Your task to perform on an android device: change your default location settings in chrome Image 0: 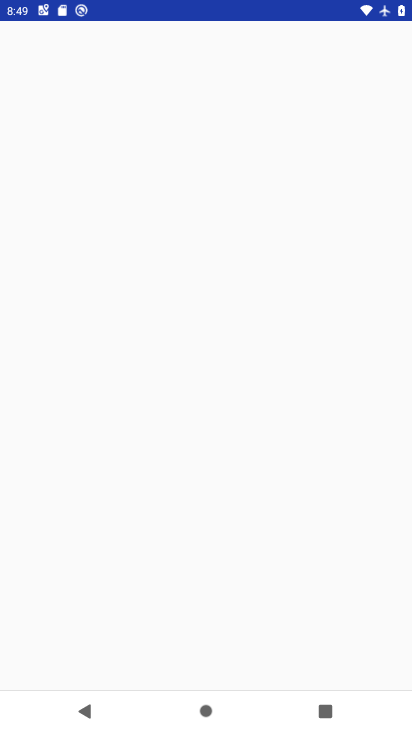
Step 0: drag from (367, 607) to (369, 358)
Your task to perform on an android device: change your default location settings in chrome Image 1: 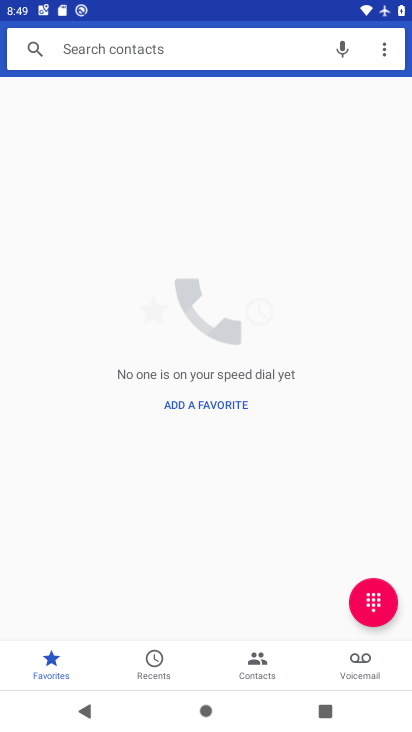
Step 1: press home button
Your task to perform on an android device: change your default location settings in chrome Image 2: 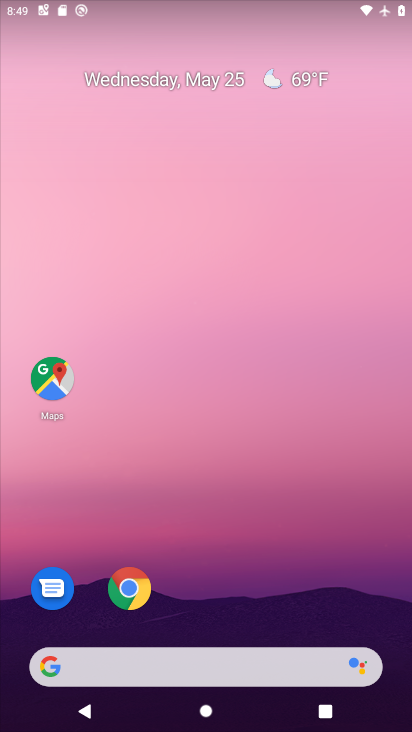
Step 2: drag from (307, 586) to (316, 229)
Your task to perform on an android device: change your default location settings in chrome Image 3: 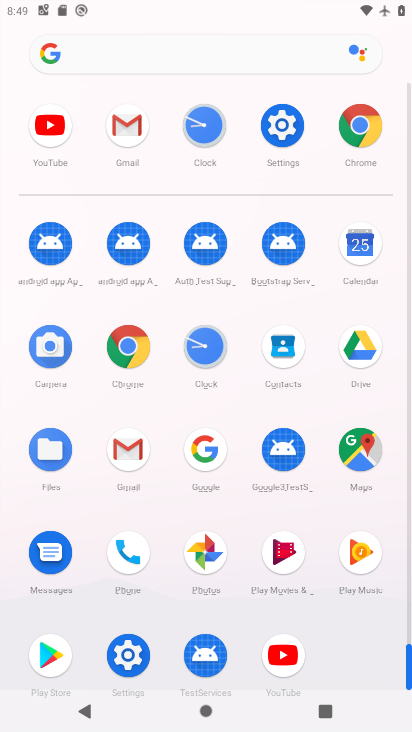
Step 3: click (145, 360)
Your task to perform on an android device: change your default location settings in chrome Image 4: 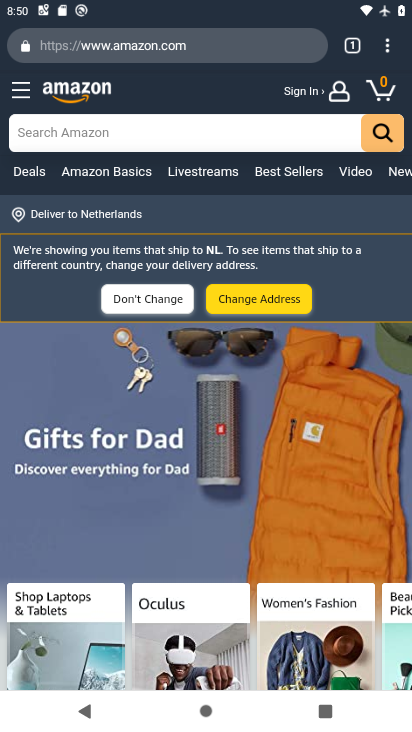
Step 4: click (384, 51)
Your task to perform on an android device: change your default location settings in chrome Image 5: 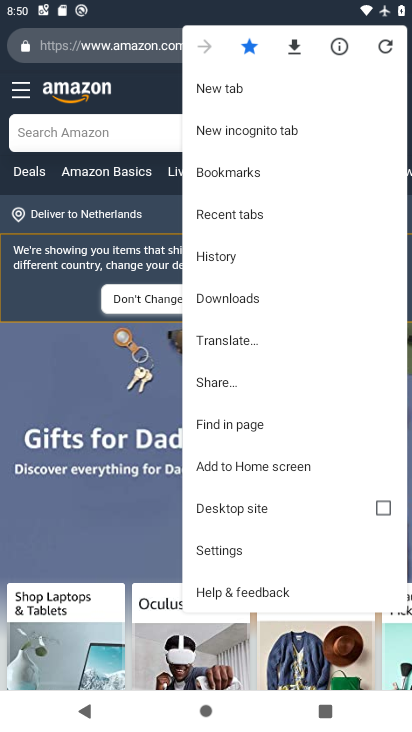
Step 5: click (245, 550)
Your task to perform on an android device: change your default location settings in chrome Image 6: 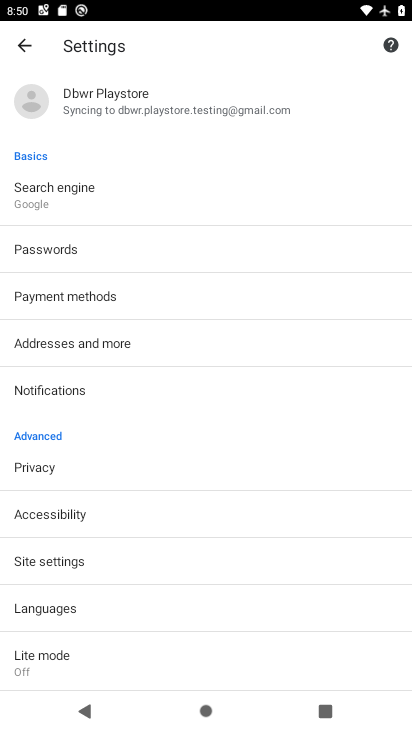
Step 6: drag from (292, 606) to (306, 545)
Your task to perform on an android device: change your default location settings in chrome Image 7: 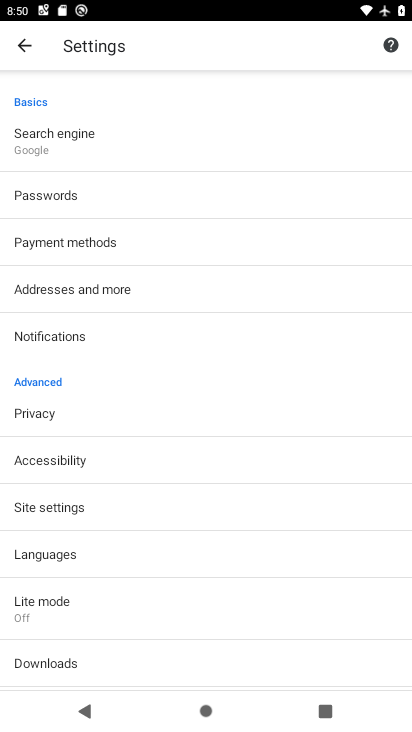
Step 7: drag from (334, 629) to (347, 559)
Your task to perform on an android device: change your default location settings in chrome Image 8: 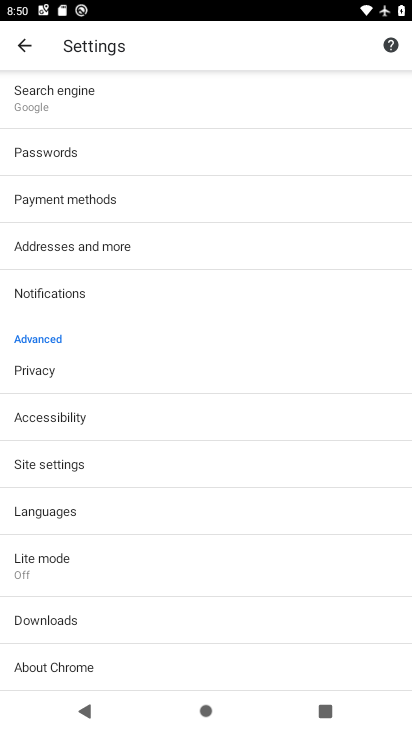
Step 8: drag from (362, 637) to (374, 570)
Your task to perform on an android device: change your default location settings in chrome Image 9: 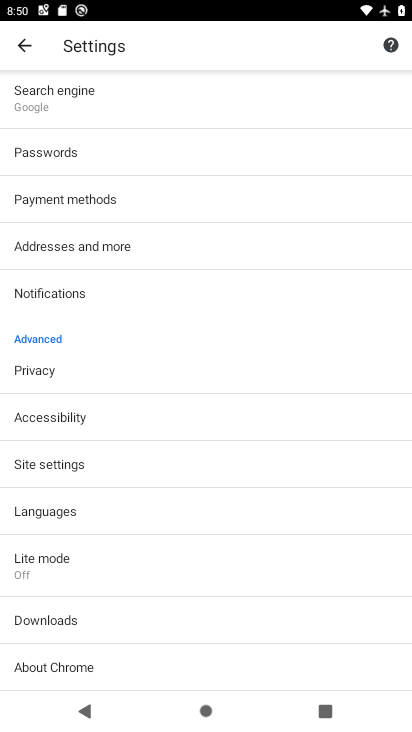
Step 9: click (329, 451)
Your task to perform on an android device: change your default location settings in chrome Image 10: 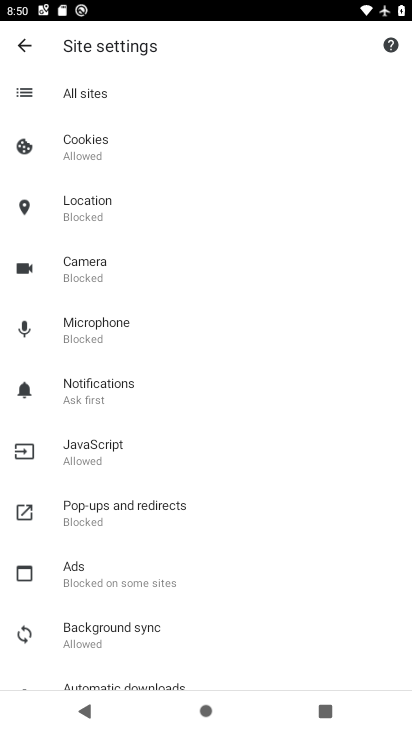
Step 10: drag from (364, 540) to (334, 426)
Your task to perform on an android device: change your default location settings in chrome Image 11: 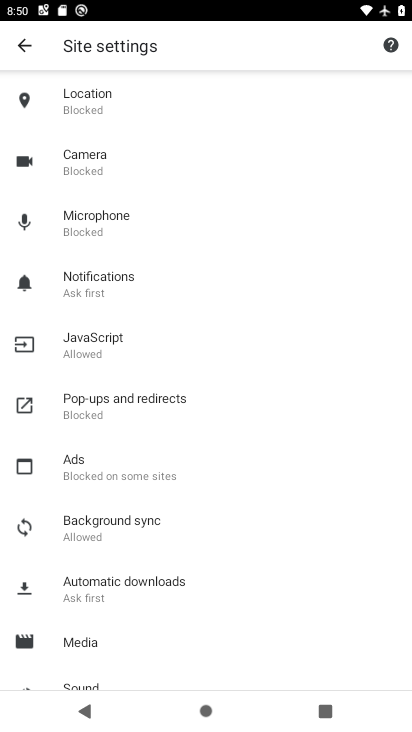
Step 11: drag from (327, 591) to (336, 499)
Your task to perform on an android device: change your default location settings in chrome Image 12: 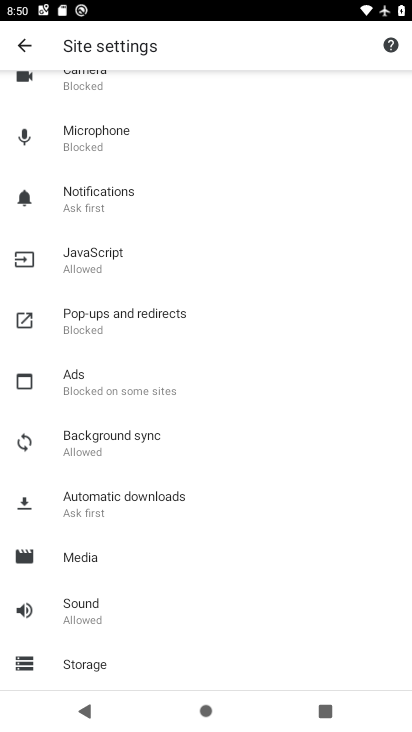
Step 12: drag from (369, 595) to (364, 526)
Your task to perform on an android device: change your default location settings in chrome Image 13: 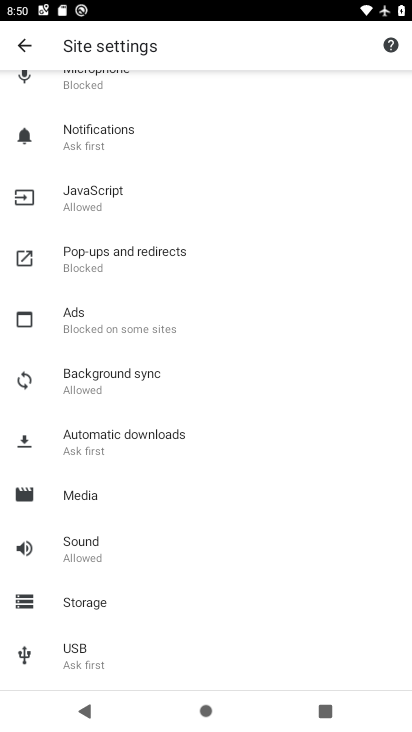
Step 13: drag from (359, 590) to (357, 525)
Your task to perform on an android device: change your default location settings in chrome Image 14: 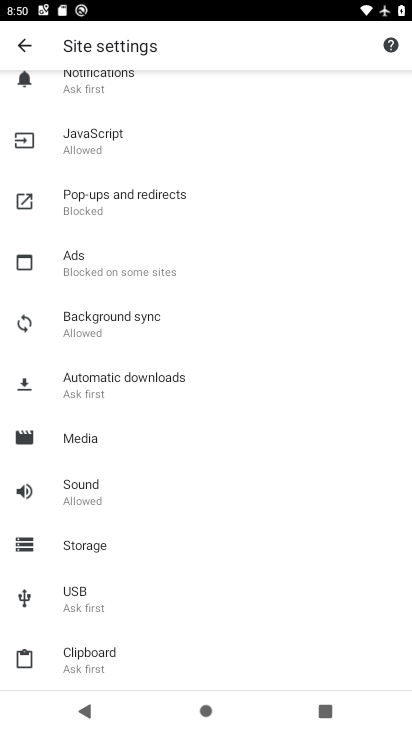
Step 14: drag from (334, 581) to (339, 516)
Your task to perform on an android device: change your default location settings in chrome Image 15: 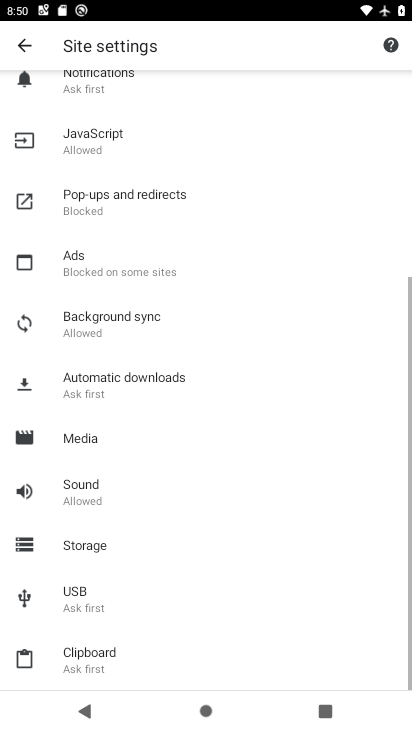
Step 15: drag from (348, 386) to (350, 456)
Your task to perform on an android device: change your default location settings in chrome Image 16: 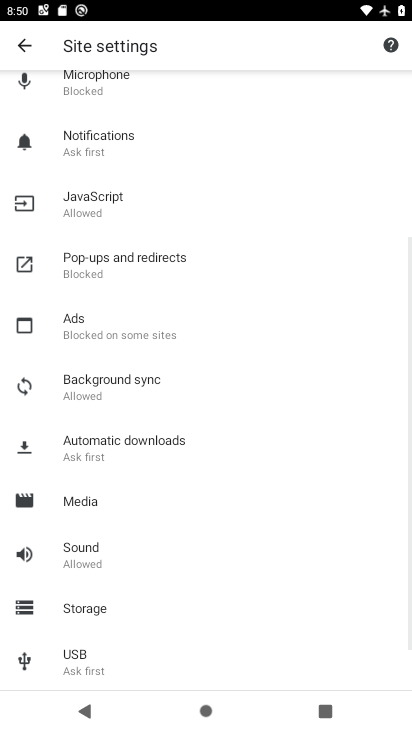
Step 16: drag from (348, 347) to (346, 429)
Your task to perform on an android device: change your default location settings in chrome Image 17: 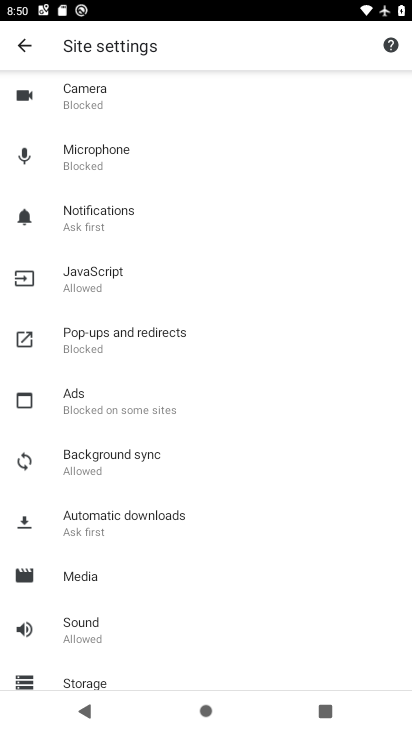
Step 17: drag from (347, 338) to (329, 433)
Your task to perform on an android device: change your default location settings in chrome Image 18: 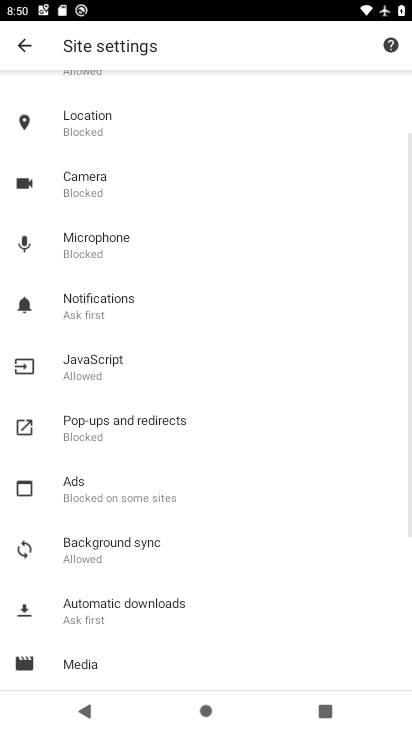
Step 18: drag from (330, 329) to (316, 434)
Your task to perform on an android device: change your default location settings in chrome Image 19: 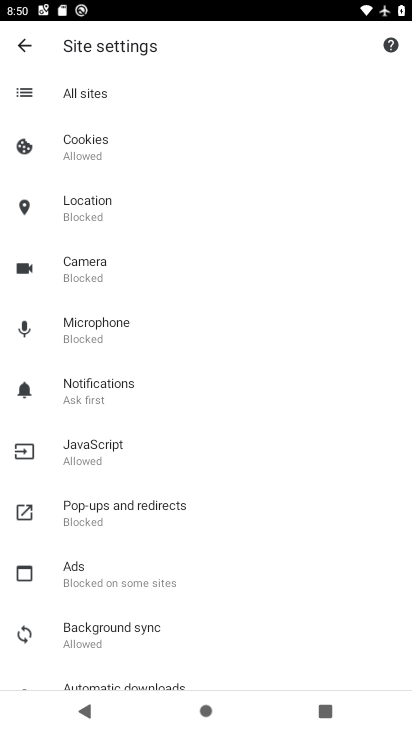
Step 19: click (116, 223)
Your task to perform on an android device: change your default location settings in chrome Image 20: 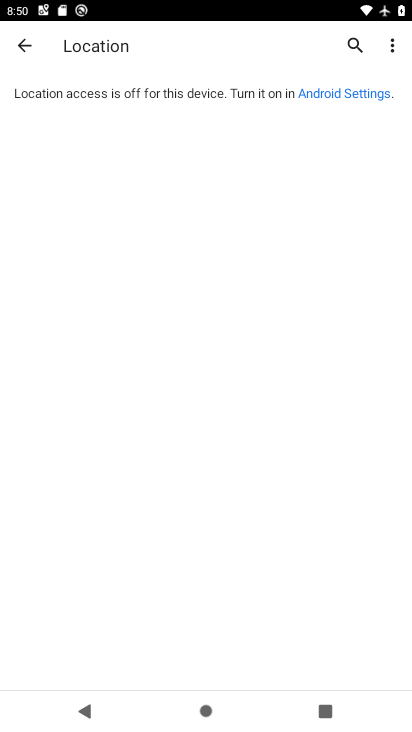
Step 20: click (335, 88)
Your task to perform on an android device: change your default location settings in chrome Image 21: 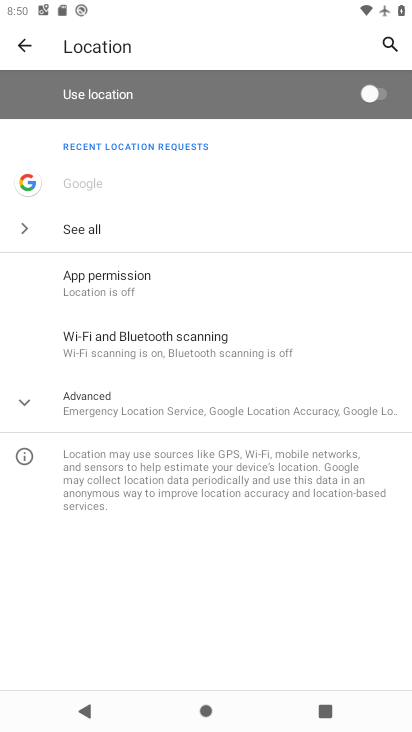
Step 21: click (371, 98)
Your task to perform on an android device: change your default location settings in chrome Image 22: 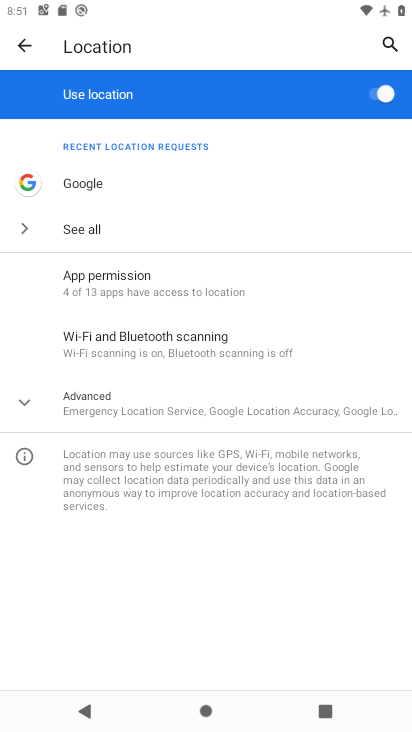
Step 22: task complete